Your task to perform on an android device: Check the news Image 0: 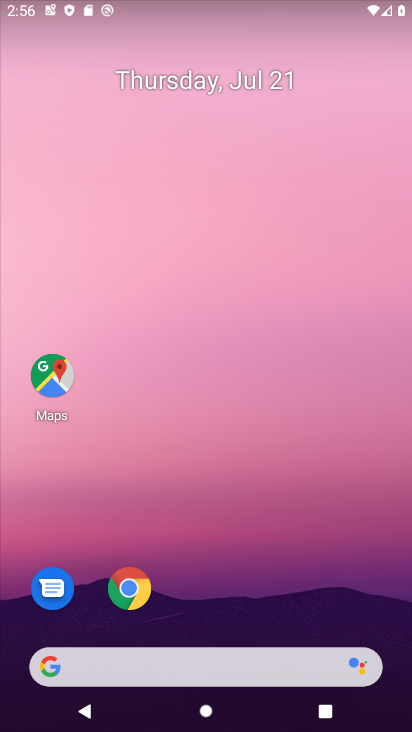
Step 0: drag from (27, 257) to (395, 356)
Your task to perform on an android device: Check the news Image 1: 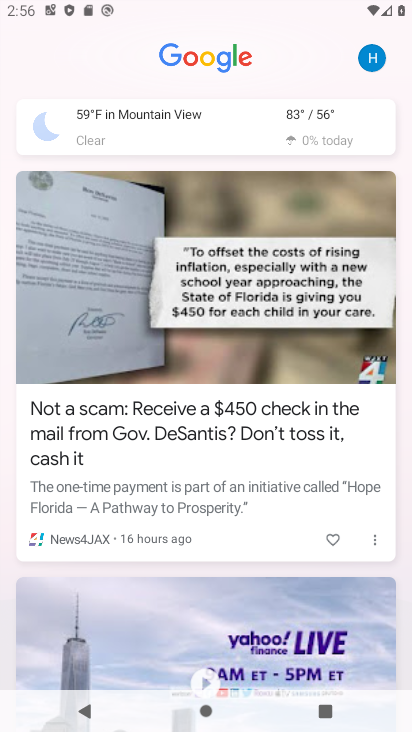
Step 1: task complete